Your task to perform on an android device: see creations saved in the google photos Image 0: 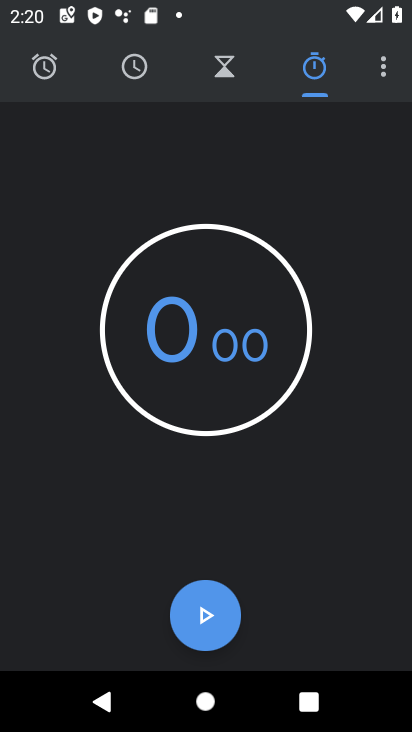
Step 0: press home button
Your task to perform on an android device: see creations saved in the google photos Image 1: 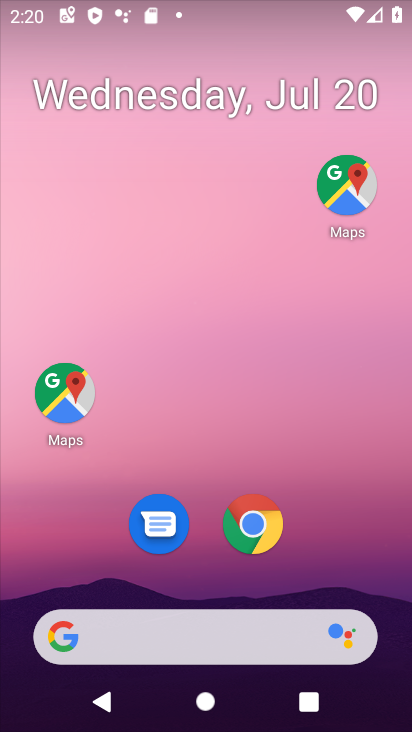
Step 1: drag from (217, 463) to (219, 16)
Your task to perform on an android device: see creations saved in the google photos Image 2: 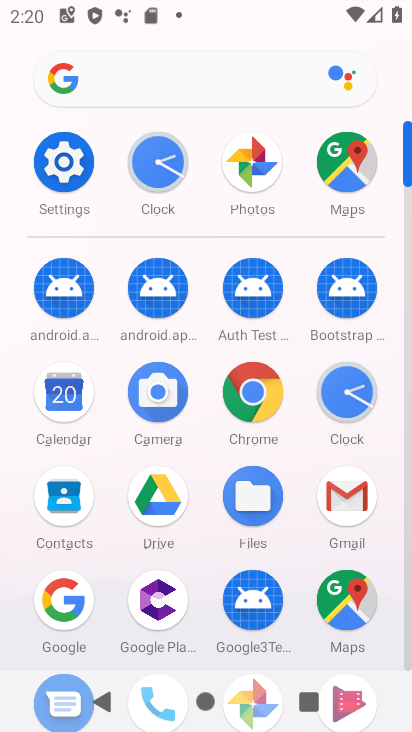
Step 2: click (261, 168)
Your task to perform on an android device: see creations saved in the google photos Image 3: 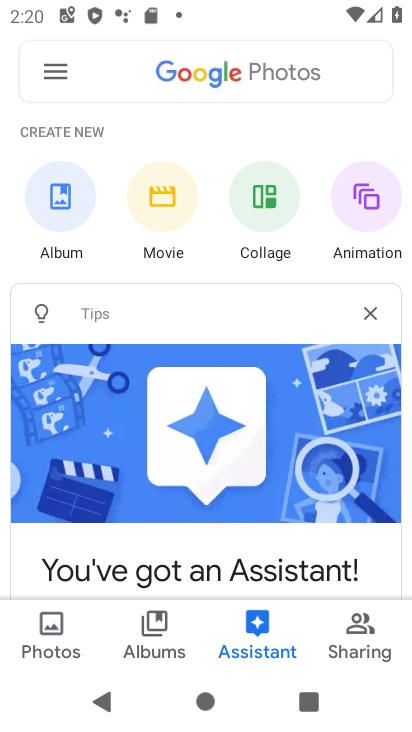
Step 3: click (240, 72)
Your task to perform on an android device: see creations saved in the google photos Image 4: 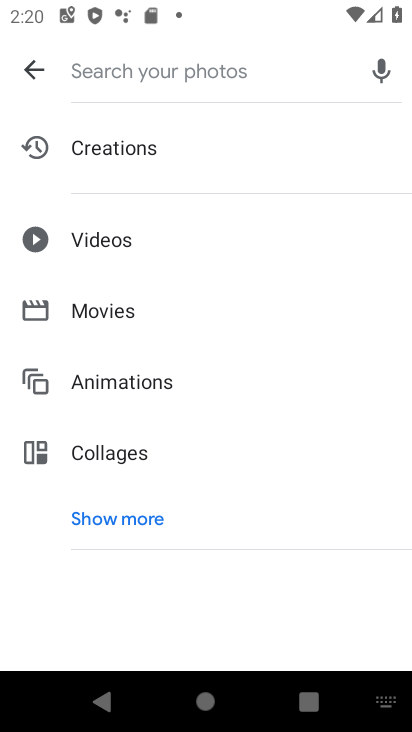
Step 4: click (143, 510)
Your task to perform on an android device: see creations saved in the google photos Image 5: 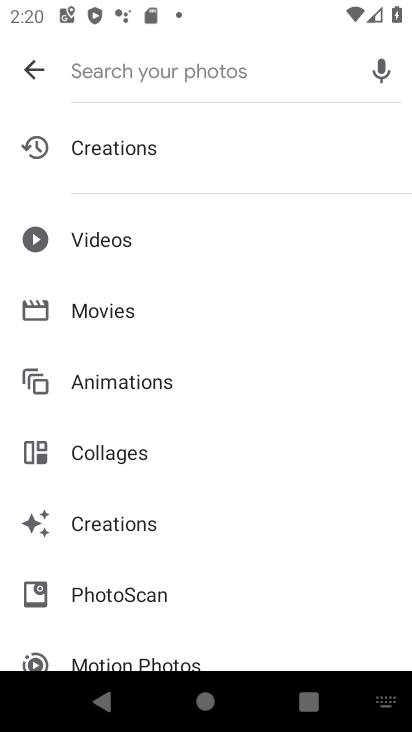
Step 5: click (141, 517)
Your task to perform on an android device: see creations saved in the google photos Image 6: 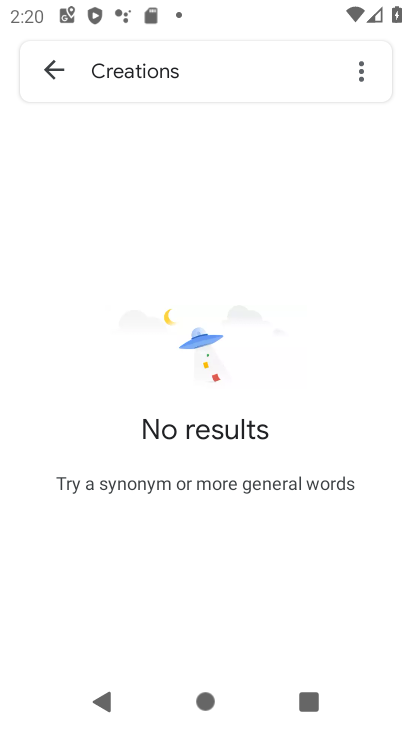
Step 6: task complete